Your task to perform on an android device: Open the Play Movies app and select the watchlist tab. Image 0: 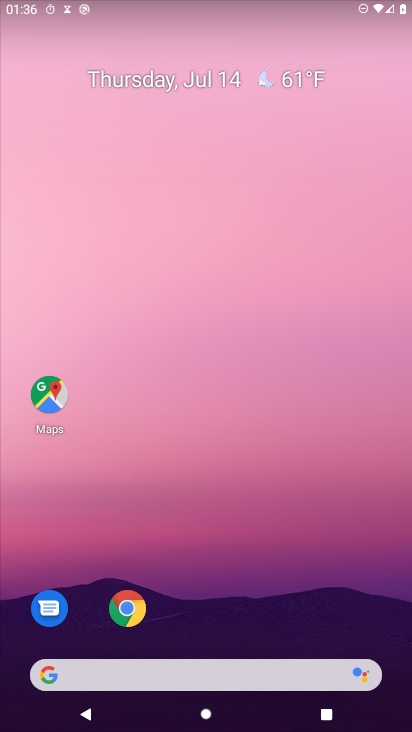
Step 0: press home button
Your task to perform on an android device: Open the Play Movies app and select the watchlist tab. Image 1: 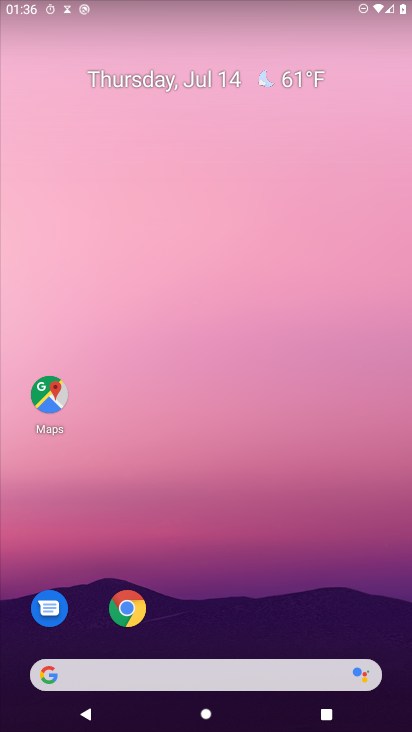
Step 1: drag from (266, 636) to (303, 37)
Your task to perform on an android device: Open the Play Movies app and select the watchlist tab. Image 2: 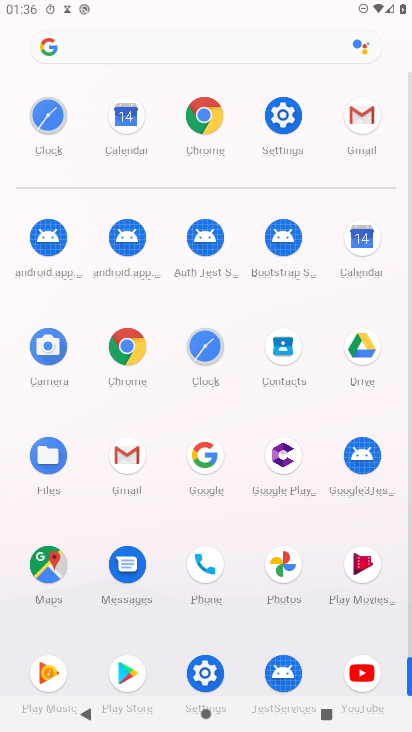
Step 2: click (363, 571)
Your task to perform on an android device: Open the Play Movies app and select the watchlist tab. Image 3: 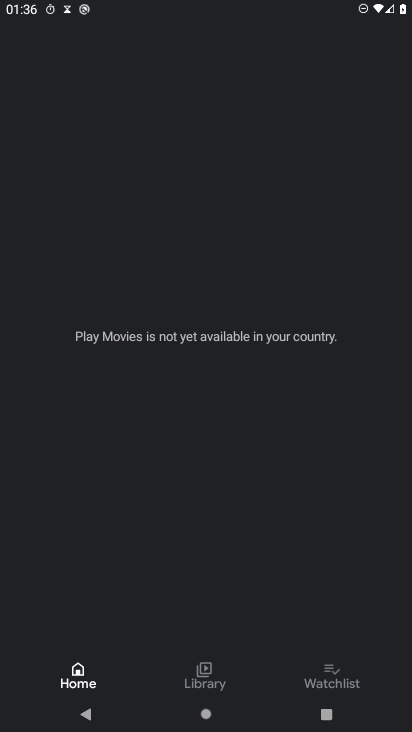
Step 3: click (323, 668)
Your task to perform on an android device: Open the Play Movies app and select the watchlist tab. Image 4: 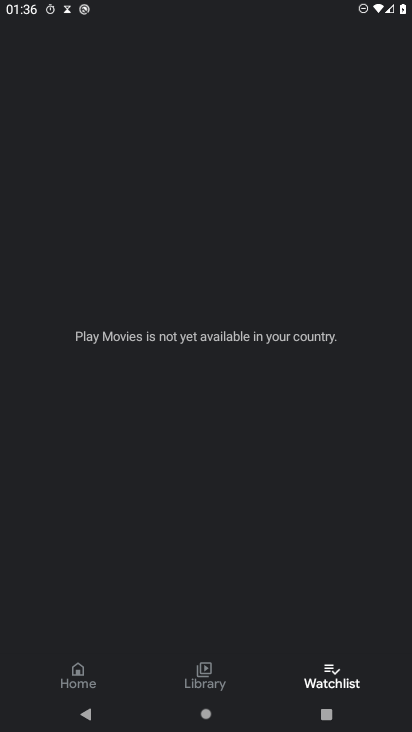
Step 4: task complete